Your task to perform on an android device: toggle notifications settings in the gmail app Image 0: 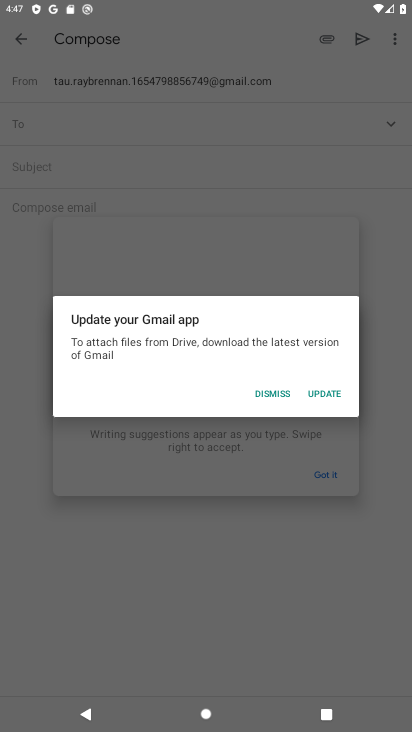
Step 0: press home button
Your task to perform on an android device: toggle notifications settings in the gmail app Image 1: 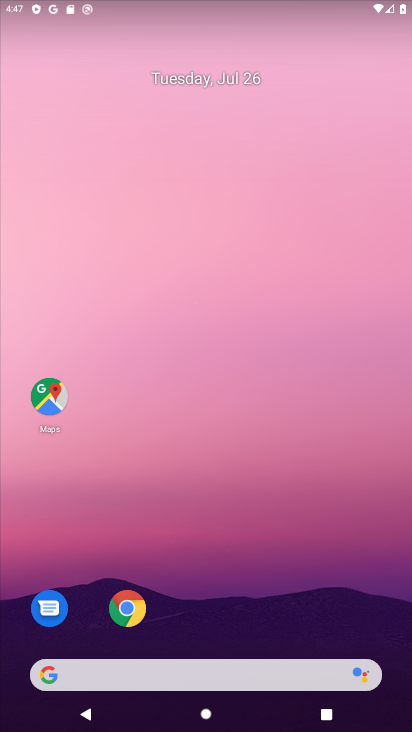
Step 1: drag from (195, 624) to (320, 15)
Your task to perform on an android device: toggle notifications settings in the gmail app Image 2: 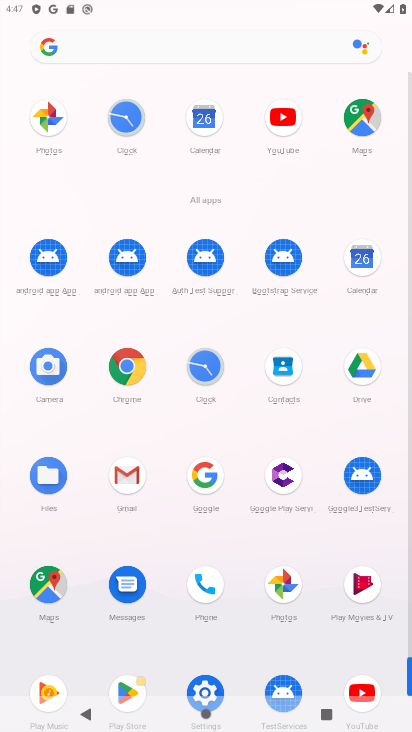
Step 2: click (132, 478)
Your task to perform on an android device: toggle notifications settings in the gmail app Image 3: 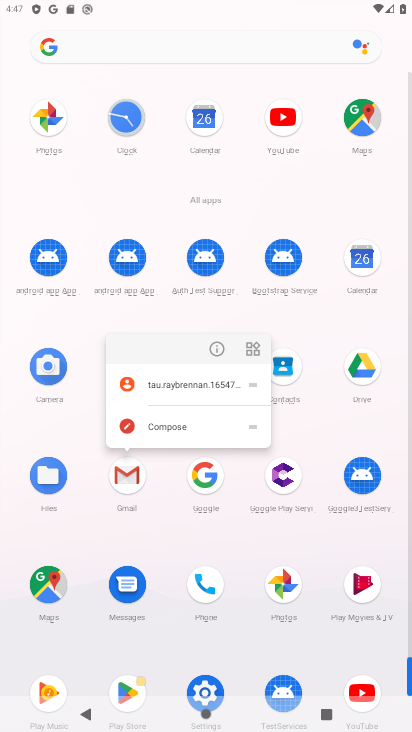
Step 3: click (132, 478)
Your task to perform on an android device: toggle notifications settings in the gmail app Image 4: 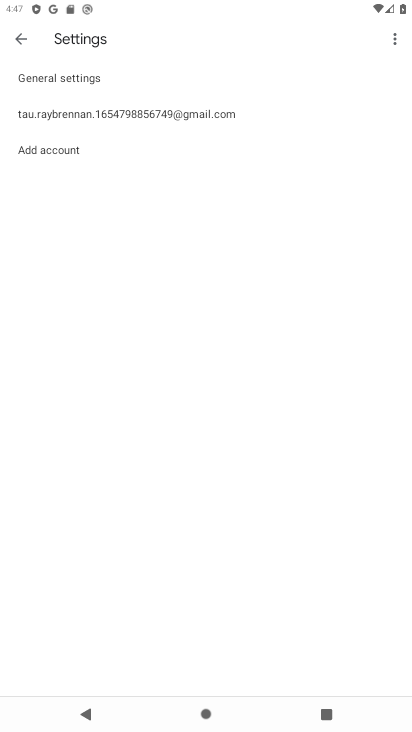
Step 4: click (65, 118)
Your task to perform on an android device: toggle notifications settings in the gmail app Image 5: 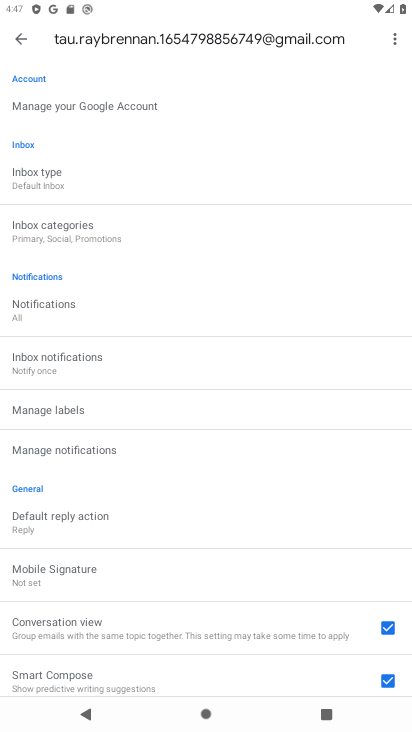
Step 5: click (89, 446)
Your task to perform on an android device: toggle notifications settings in the gmail app Image 6: 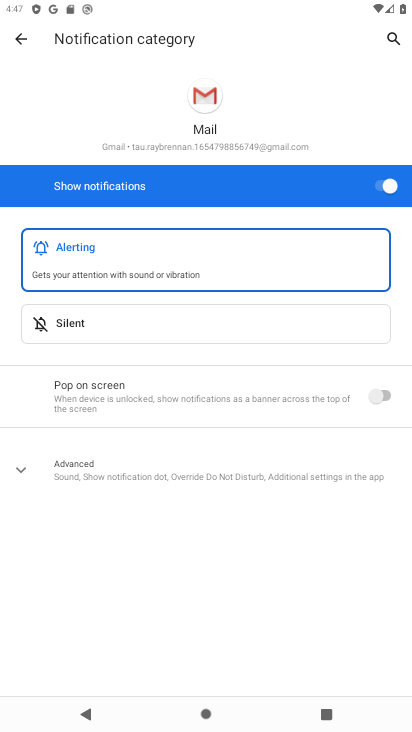
Step 6: click (370, 187)
Your task to perform on an android device: toggle notifications settings in the gmail app Image 7: 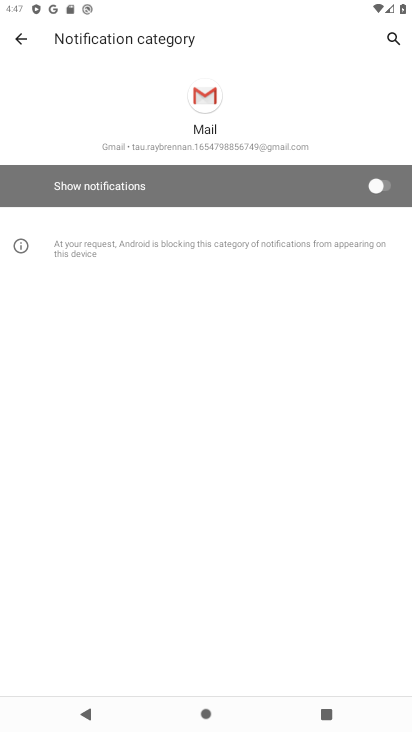
Step 7: task complete